Your task to perform on an android device: toggle pop-ups in chrome Image 0: 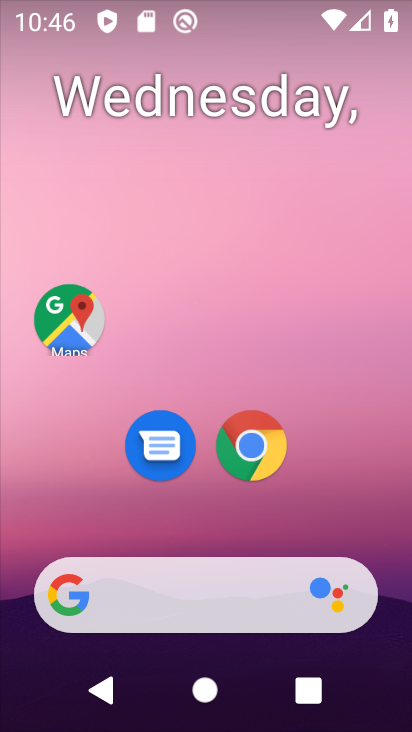
Step 0: click (254, 438)
Your task to perform on an android device: toggle pop-ups in chrome Image 1: 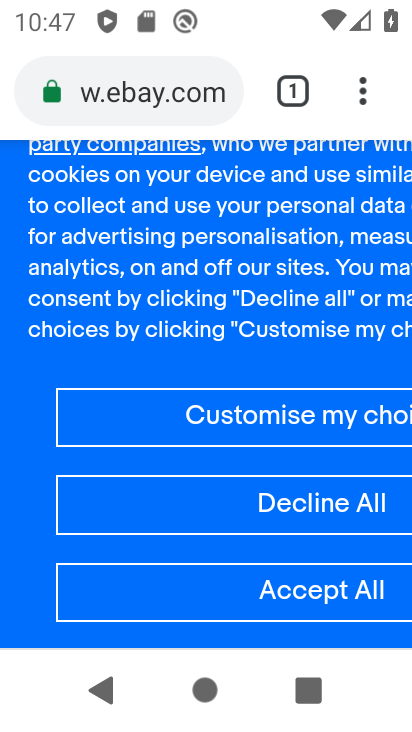
Step 1: click (368, 94)
Your task to perform on an android device: toggle pop-ups in chrome Image 2: 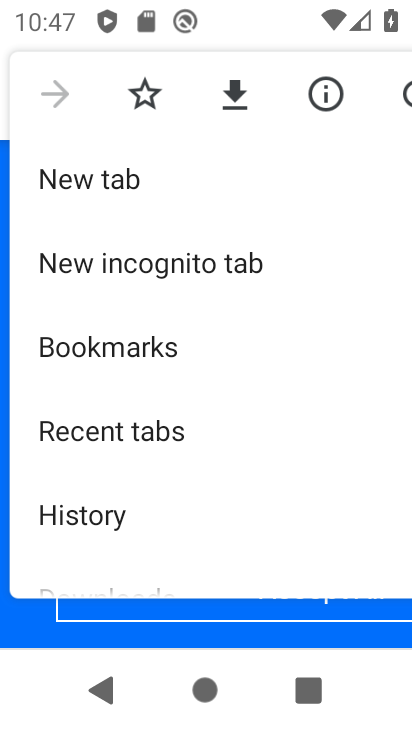
Step 2: drag from (211, 519) to (220, 95)
Your task to perform on an android device: toggle pop-ups in chrome Image 3: 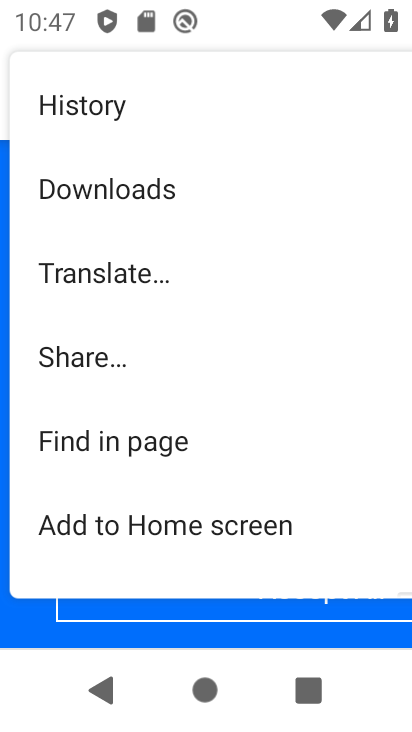
Step 3: drag from (126, 495) to (144, 114)
Your task to perform on an android device: toggle pop-ups in chrome Image 4: 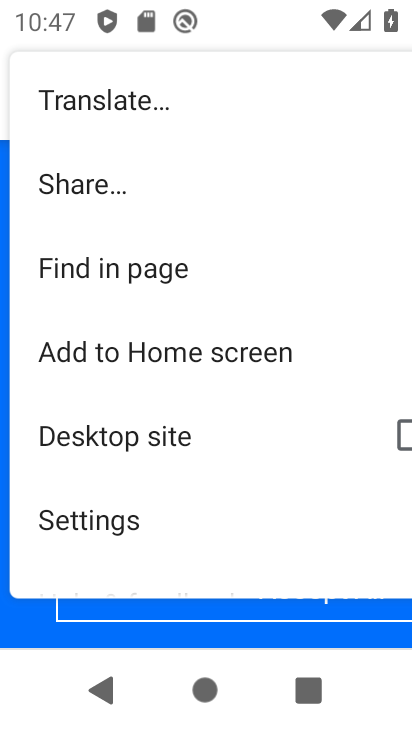
Step 4: click (83, 510)
Your task to perform on an android device: toggle pop-ups in chrome Image 5: 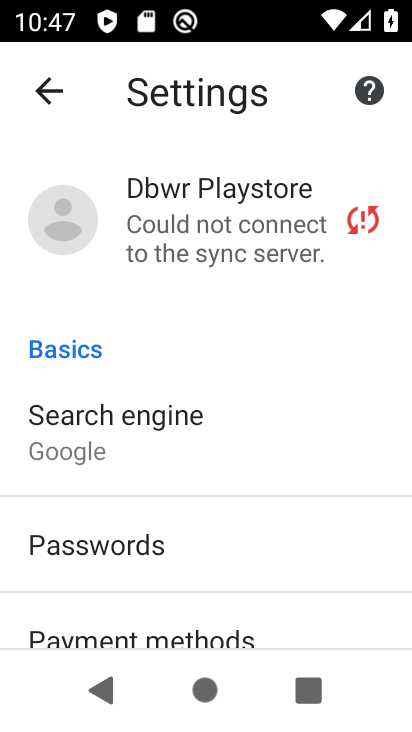
Step 5: drag from (62, 608) to (132, 88)
Your task to perform on an android device: toggle pop-ups in chrome Image 6: 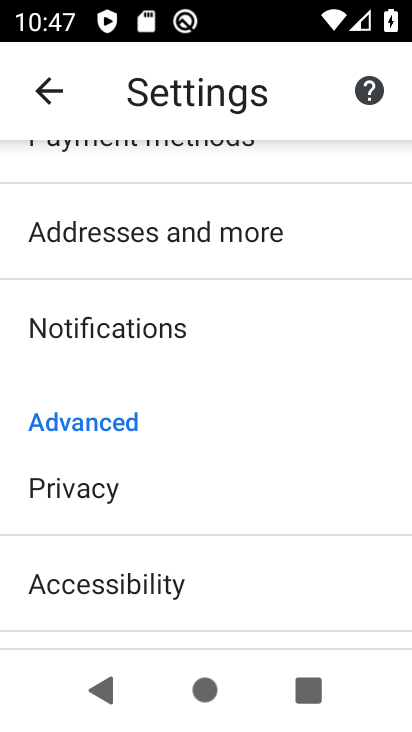
Step 6: drag from (121, 525) to (166, 165)
Your task to perform on an android device: toggle pop-ups in chrome Image 7: 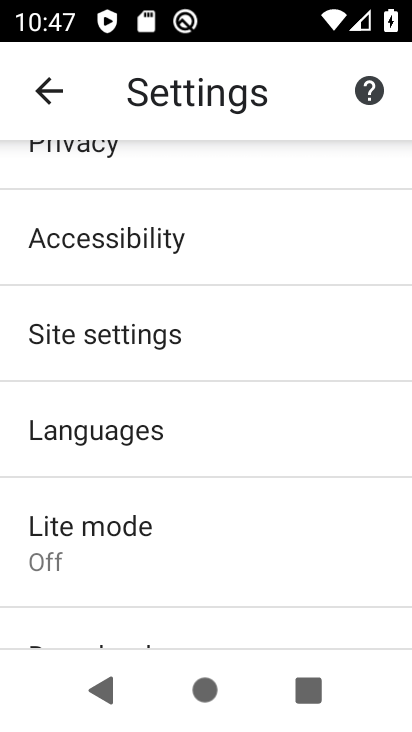
Step 7: click (146, 341)
Your task to perform on an android device: toggle pop-ups in chrome Image 8: 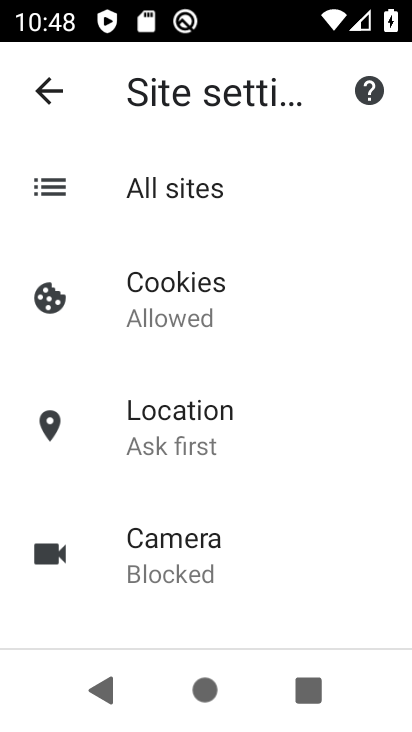
Step 8: drag from (166, 577) to (251, 150)
Your task to perform on an android device: toggle pop-ups in chrome Image 9: 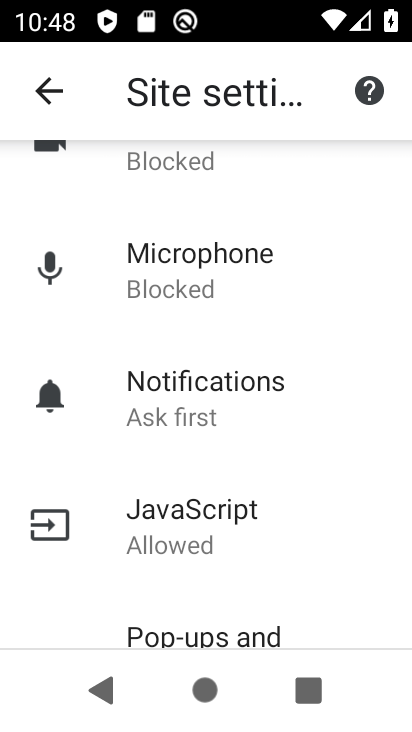
Step 9: click (149, 631)
Your task to perform on an android device: toggle pop-ups in chrome Image 10: 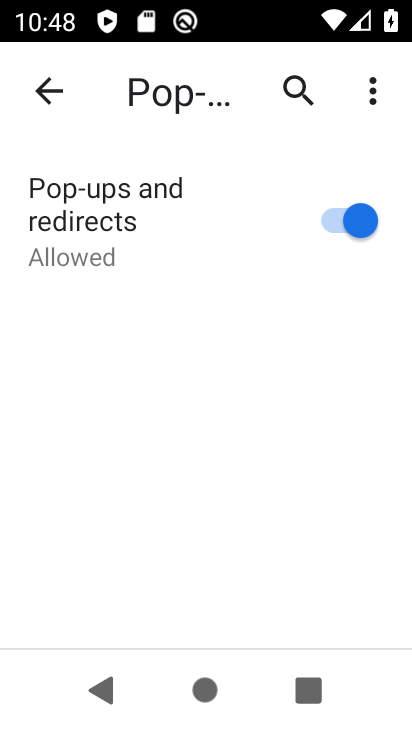
Step 10: click (352, 214)
Your task to perform on an android device: toggle pop-ups in chrome Image 11: 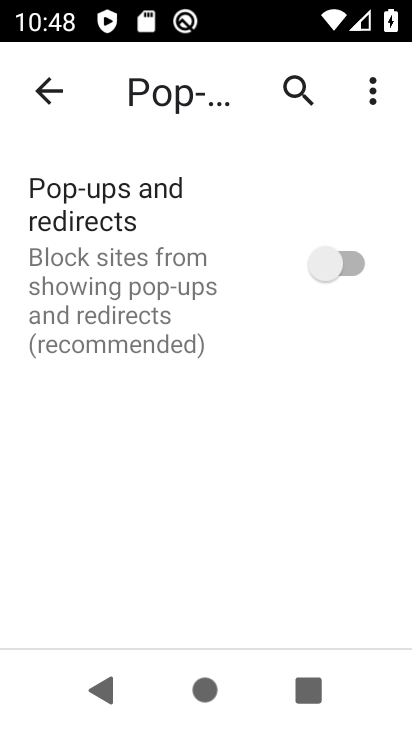
Step 11: task complete